Your task to perform on an android device: choose inbox layout in the gmail app Image 0: 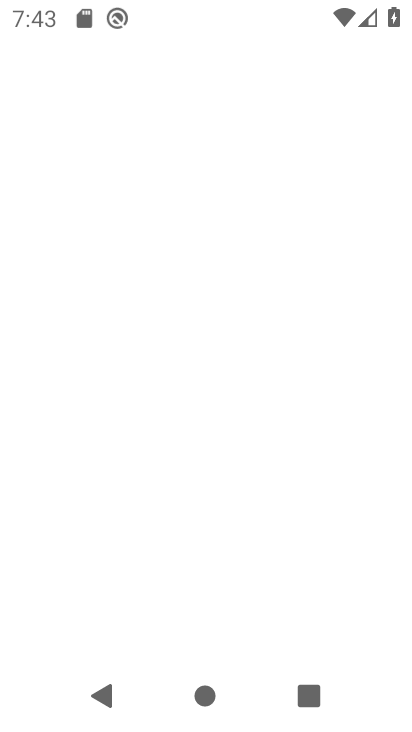
Step 0: press back button
Your task to perform on an android device: choose inbox layout in the gmail app Image 1: 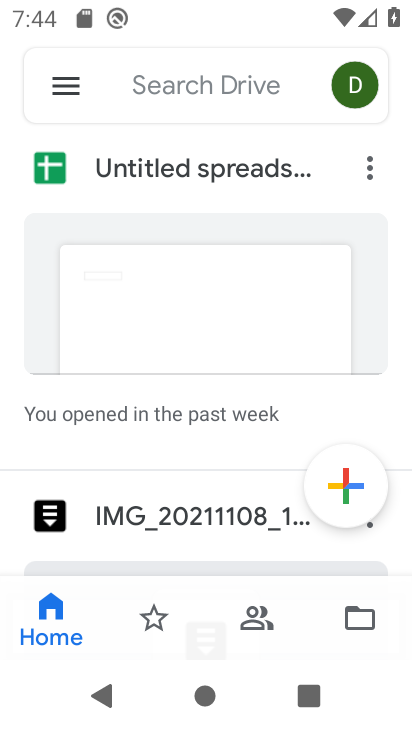
Step 1: press back button
Your task to perform on an android device: choose inbox layout in the gmail app Image 2: 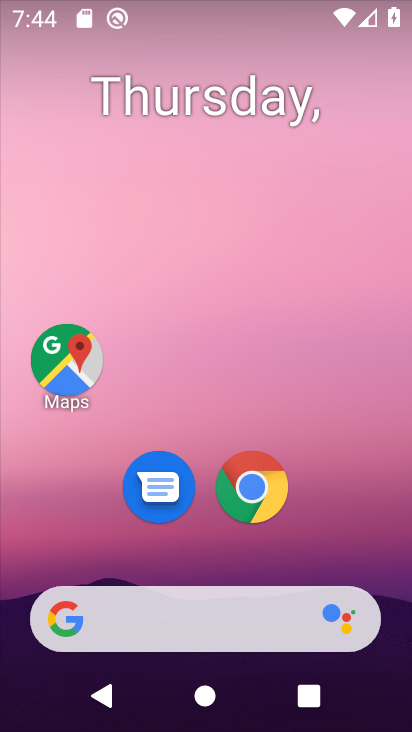
Step 2: drag from (168, 564) to (180, 134)
Your task to perform on an android device: choose inbox layout in the gmail app Image 3: 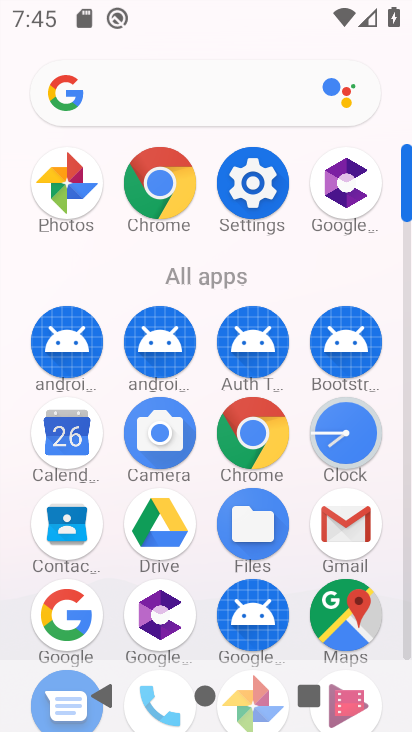
Step 3: click (354, 524)
Your task to perform on an android device: choose inbox layout in the gmail app Image 4: 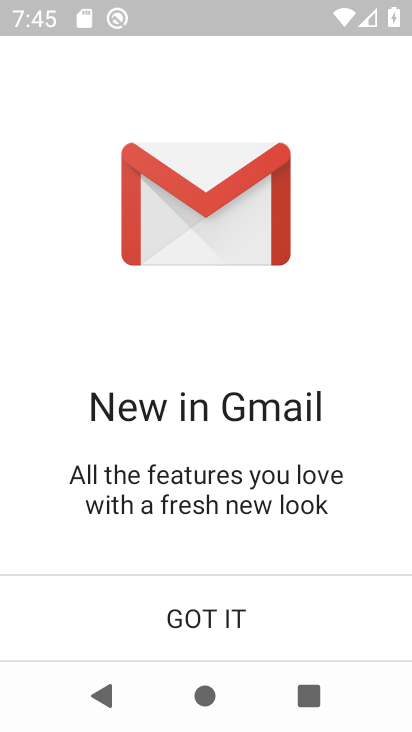
Step 4: click (206, 609)
Your task to perform on an android device: choose inbox layout in the gmail app Image 5: 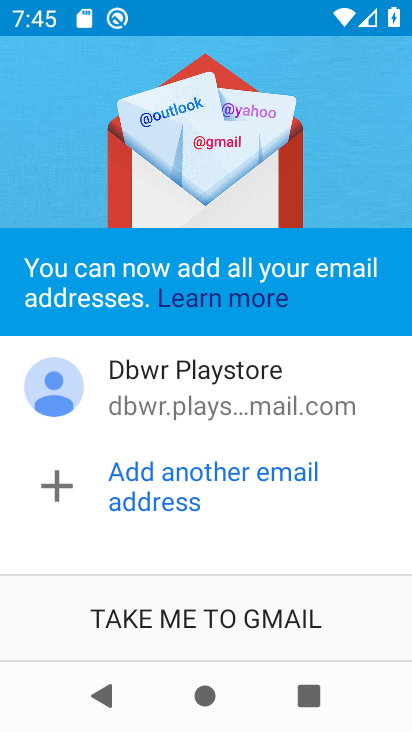
Step 5: click (208, 616)
Your task to perform on an android device: choose inbox layout in the gmail app Image 6: 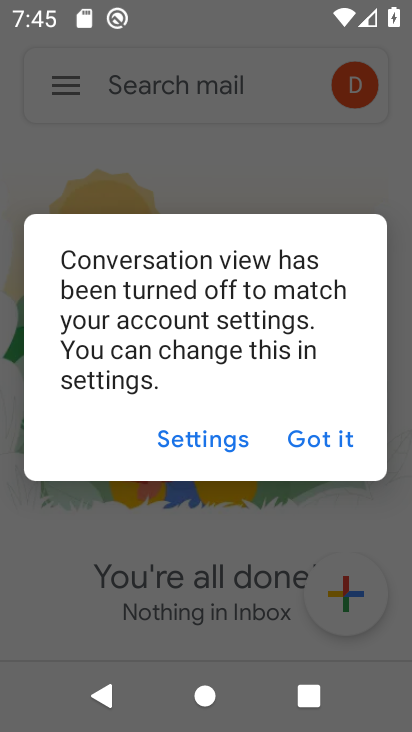
Step 6: click (311, 445)
Your task to perform on an android device: choose inbox layout in the gmail app Image 7: 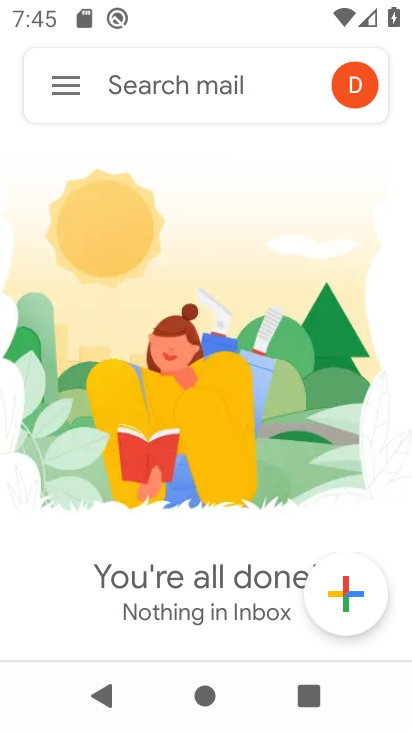
Step 7: click (58, 78)
Your task to perform on an android device: choose inbox layout in the gmail app Image 8: 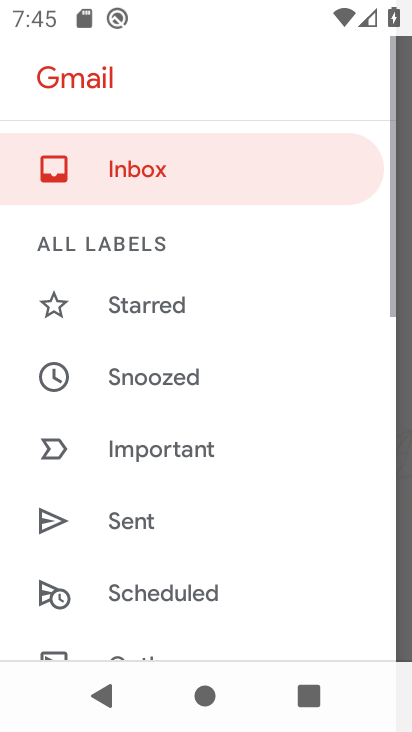
Step 8: drag from (187, 580) to (200, 206)
Your task to perform on an android device: choose inbox layout in the gmail app Image 9: 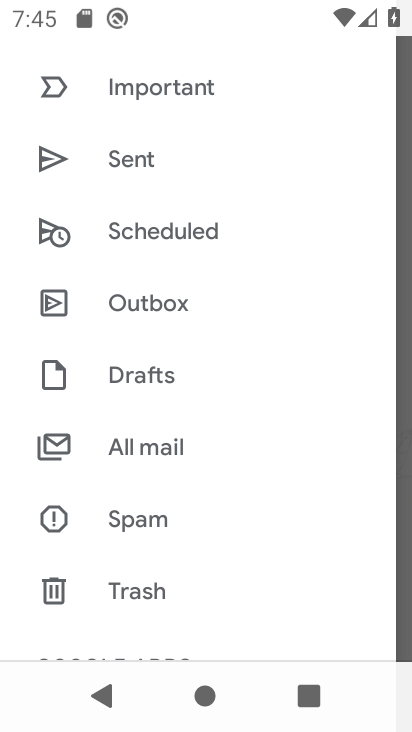
Step 9: drag from (165, 563) to (231, 93)
Your task to perform on an android device: choose inbox layout in the gmail app Image 10: 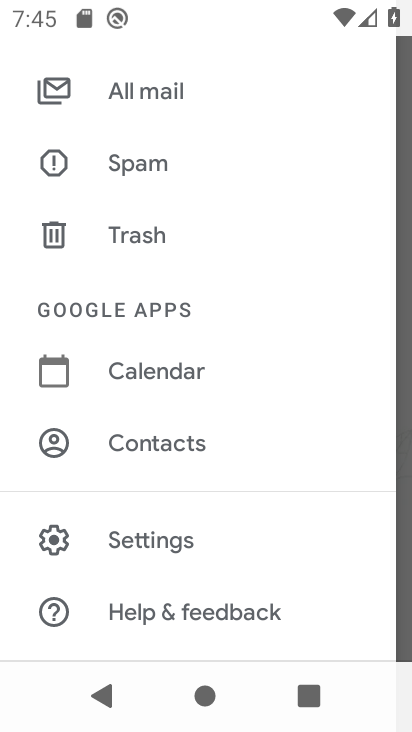
Step 10: click (156, 534)
Your task to perform on an android device: choose inbox layout in the gmail app Image 11: 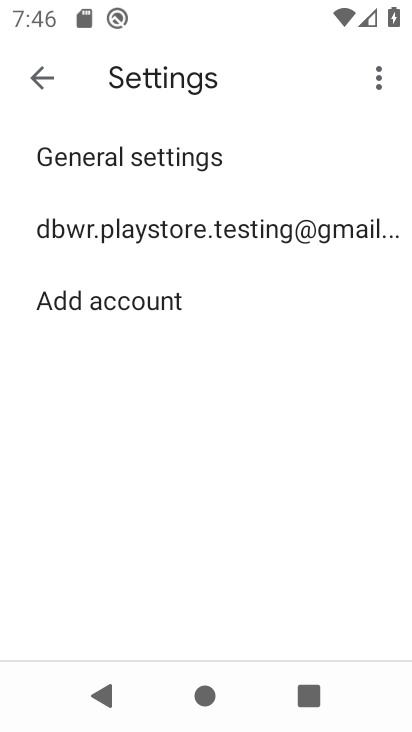
Step 11: click (132, 221)
Your task to perform on an android device: choose inbox layout in the gmail app Image 12: 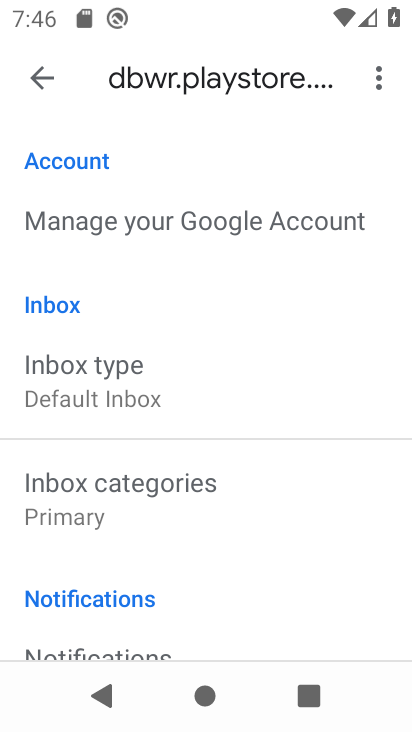
Step 12: click (105, 369)
Your task to perform on an android device: choose inbox layout in the gmail app Image 13: 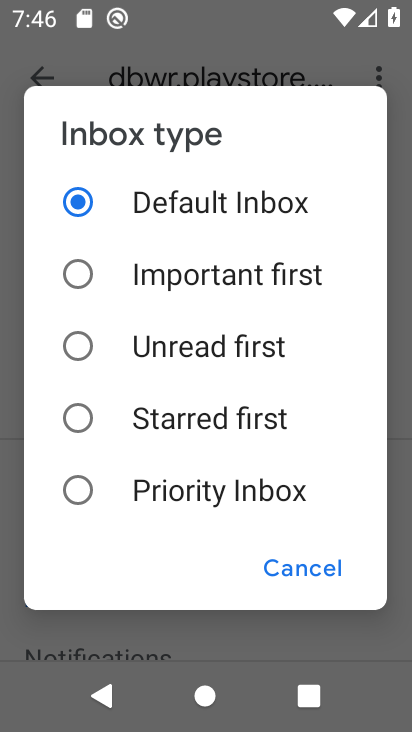
Step 13: click (72, 280)
Your task to perform on an android device: choose inbox layout in the gmail app Image 14: 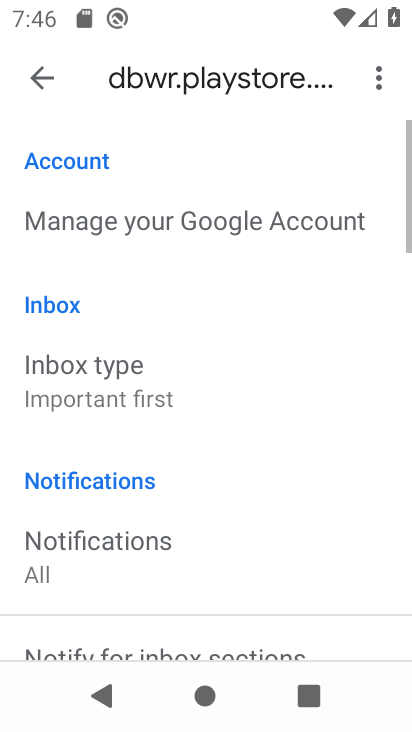
Step 14: task complete